Your task to perform on an android device: toggle pop-ups in chrome Image 0: 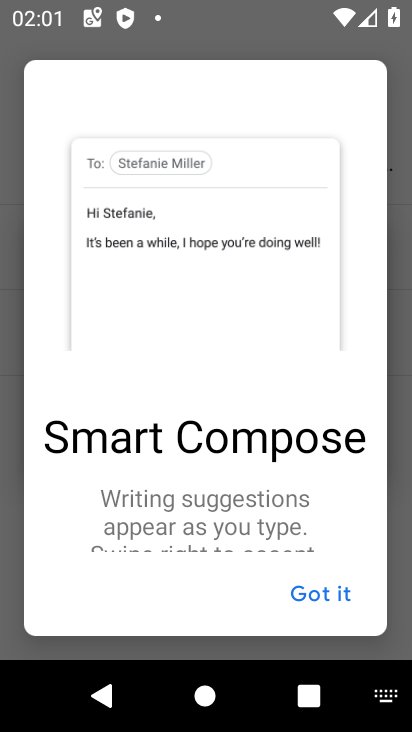
Step 0: press home button
Your task to perform on an android device: toggle pop-ups in chrome Image 1: 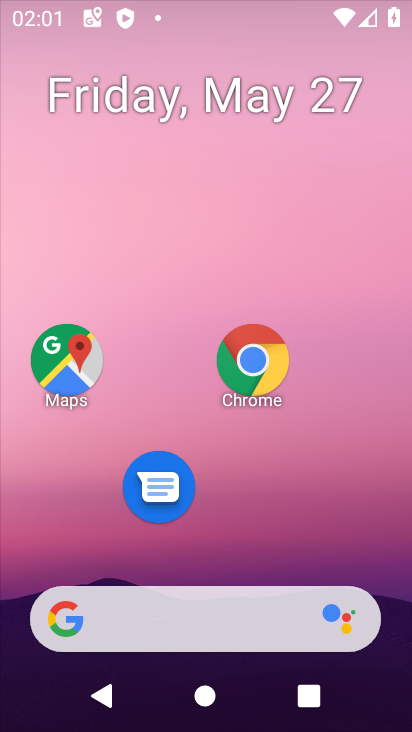
Step 1: click (264, 510)
Your task to perform on an android device: toggle pop-ups in chrome Image 2: 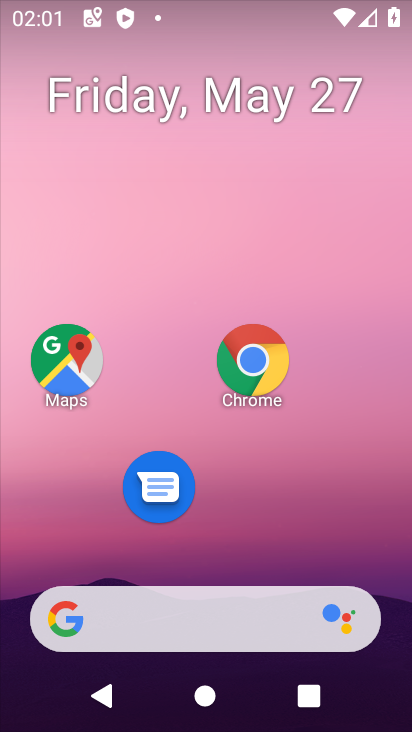
Step 2: click (255, 361)
Your task to perform on an android device: toggle pop-ups in chrome Image 3: 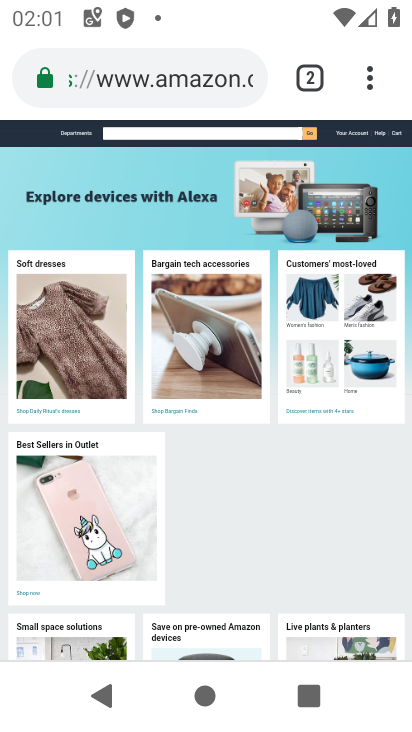
Step 3: click (353, 77)
Your task to perform on an android device: toggle pop-ups in chrome Image 4: 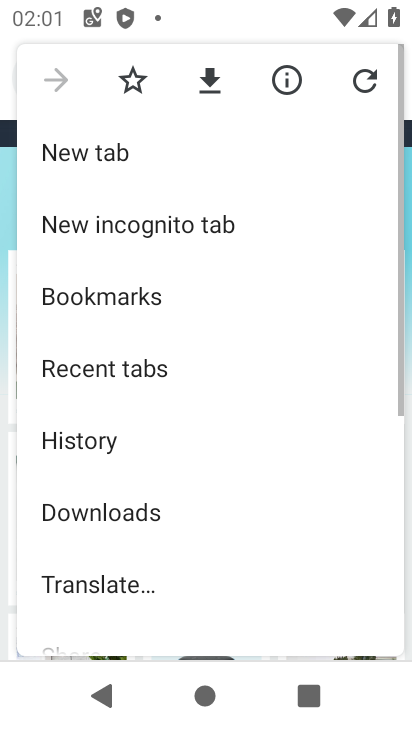
Step 4: drag from (260, 481) to (246, 72)
Your task to perform on an android device: toggle pop-ups in chrome Image 5: 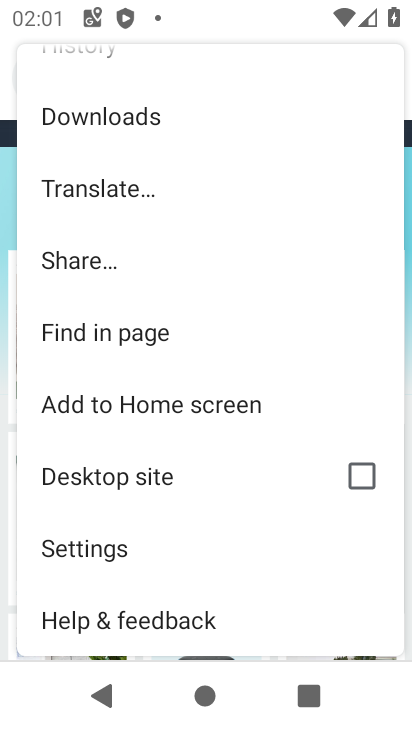
Step 5: click (129, 554)
Your task to perform on an android device: toggle pop-ups in chrome Image 6: 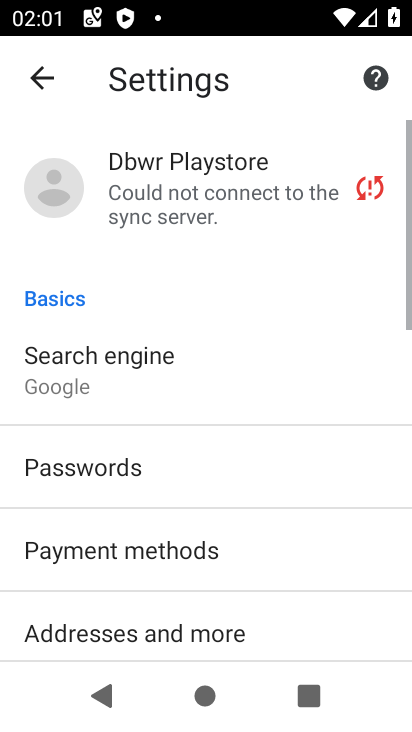
Step 6: drag from (202, 547) to (227, 187)
Your task to perform on an android device: toggle pop-ups in chrome Image 7: 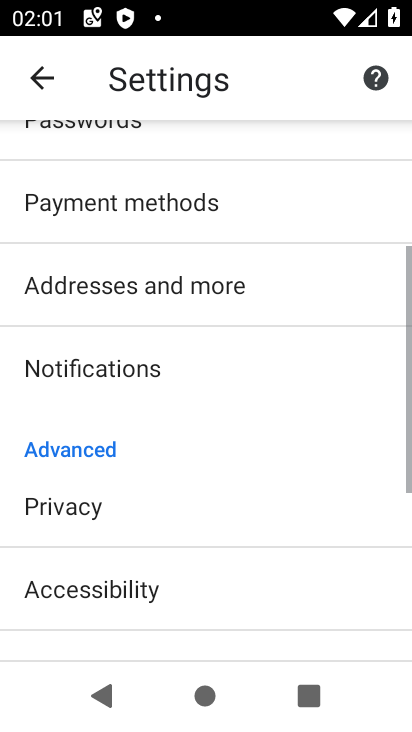
Step 7: drag from (219, 489) to (225, 216)
Your task to perform on an android device: toggle pop-ups in chrome Image 8: 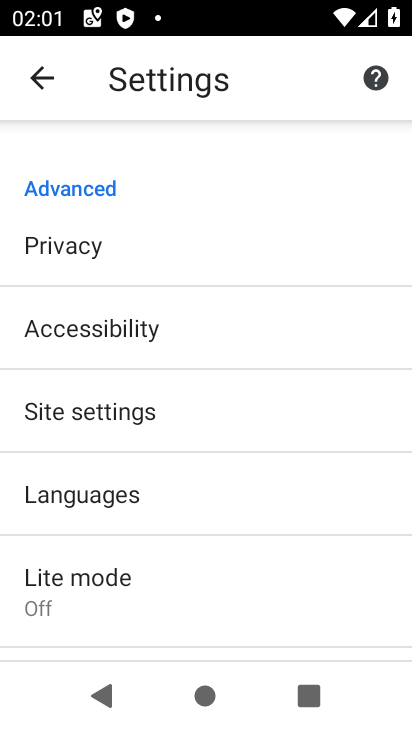
Step 8: click (122, 411)
Your task to perform on an android device: toggle pop-ups in chrome Image 9: 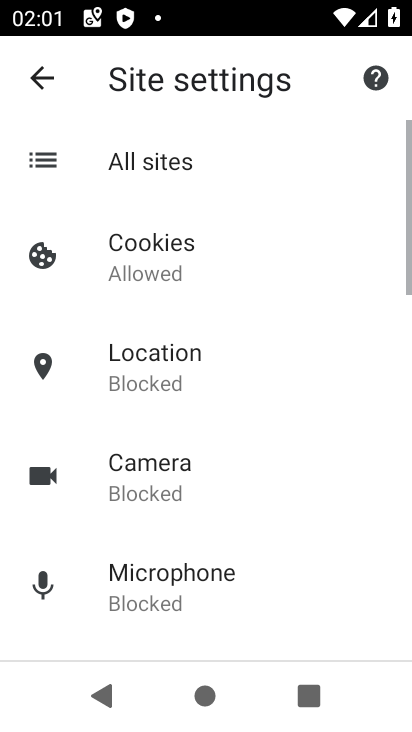
Step 9: drag from (189, 540) to (223, 160)
Your task to perform on an android device: toggle pop-ups in chrome Image 10: 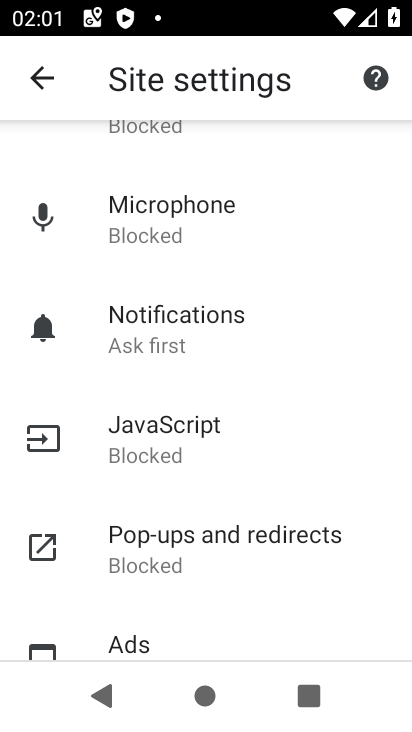
Step 10: click (149, 540)
Your task to perform on an android device: toggle pop-ups in chrome Image 11: 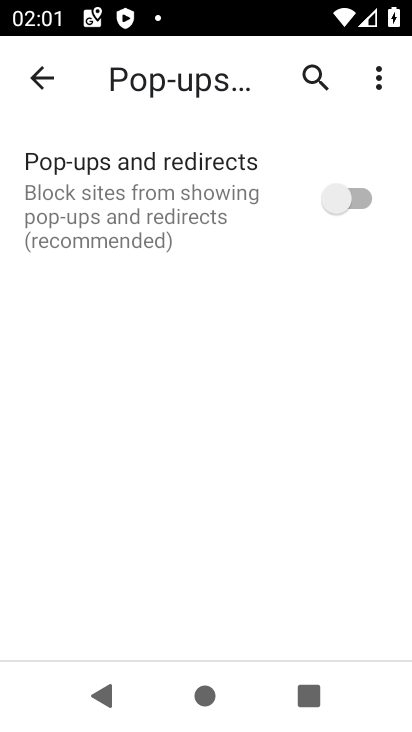
Step 11: click (329, 192)
Your task to perform on an android device: toggle pop-ups in chrome Image 12: 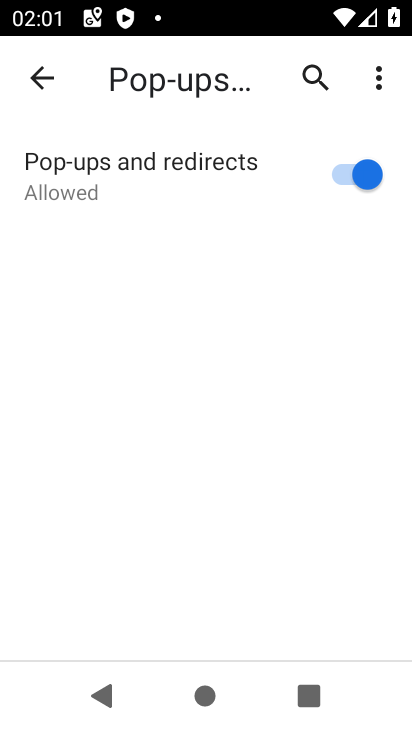
Step 12: task complete